Your task to perform on an android device: empty trash in google photos Image 0: 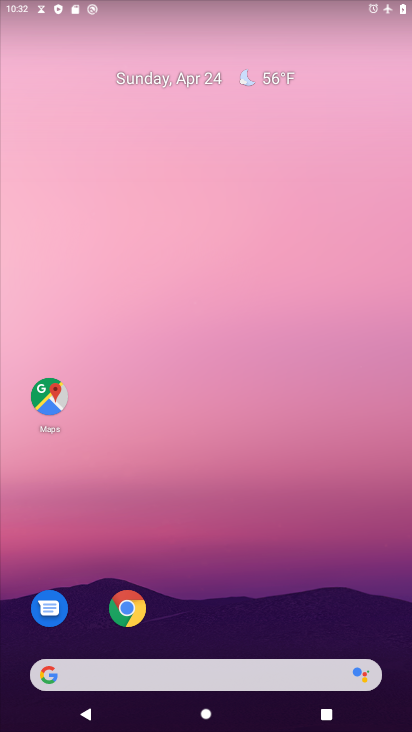
Step 0: drag from (213, 643) to (217, 12)
Your task to perform on an android device: empty trash in google photos Image 1: 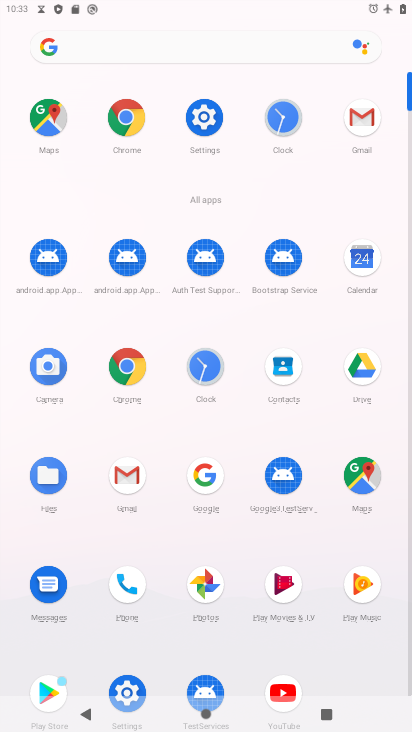
Step 1: click (201, 580)
Your task to perform on an android device: empty trash in google photos Image 2: 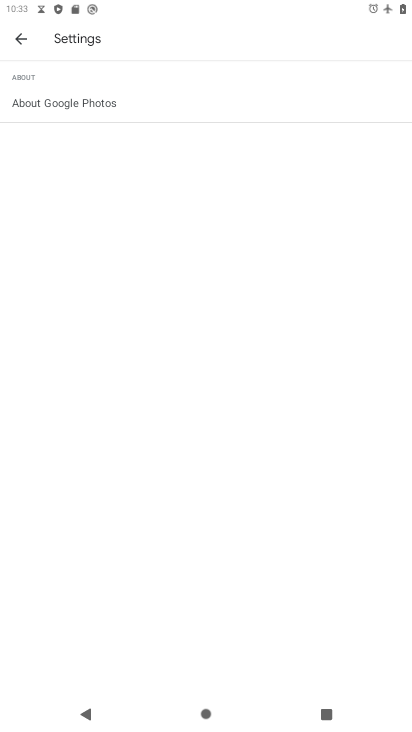
Step 2: click (26, 37)
Your task to perform on an android device: empty trash in google photos Image 3: 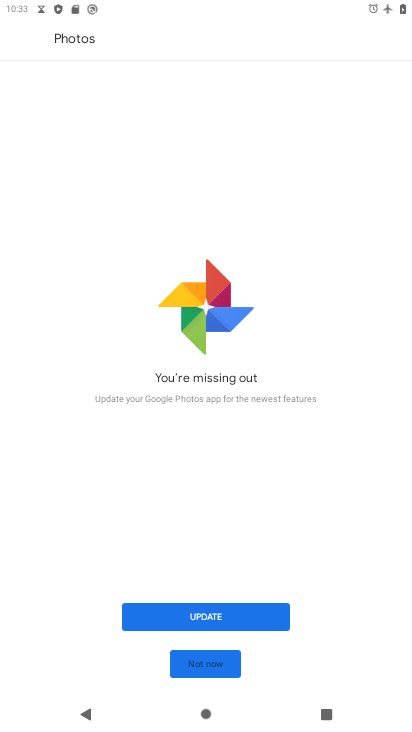
Step 3: click (213, 669)
Your task to perform on an android device: empty trash in google photos Image 4: 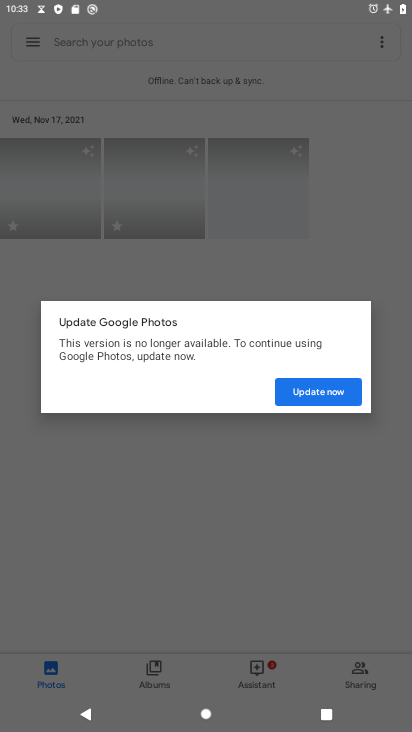
Step 4: click (325, 391)
Your task to perform on an android device: empty trash in google photos Image 5: 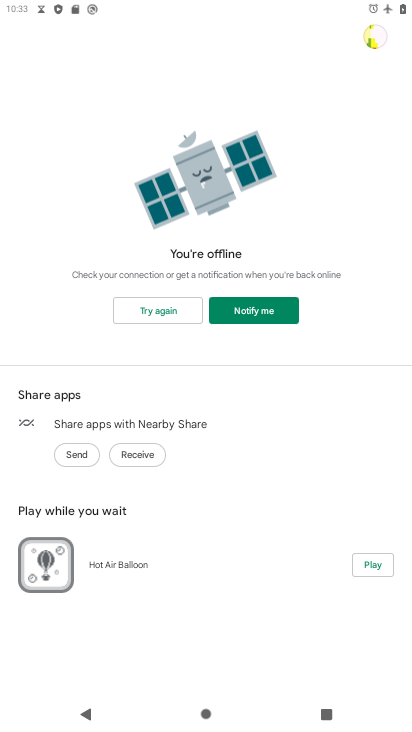
Step 5: click (160, 311)
Your task to perform on an android device: empty trash in google photos Image 6: 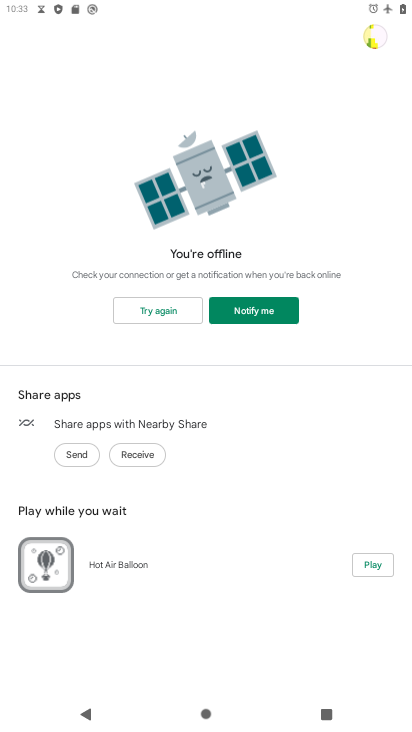
Step 6: click (174, 299)
Your task to perform on an android device: empty trash in google photos Image 7: 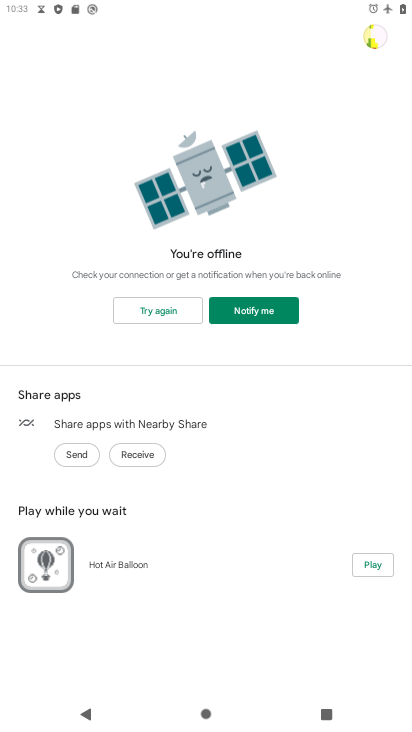
Step 7: press home button
Your task to perform on an android device: empty trash in google photos Image 8: 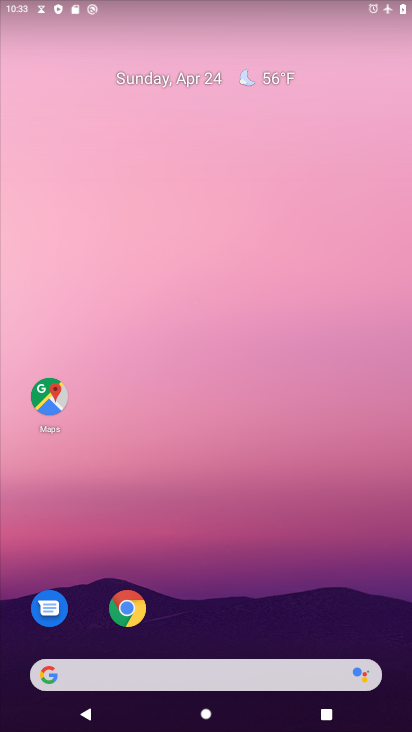
Step 8: drag from (204, 565) to (169, 10)
Your task to perform on an android device: empty trash in google photos Image 9: 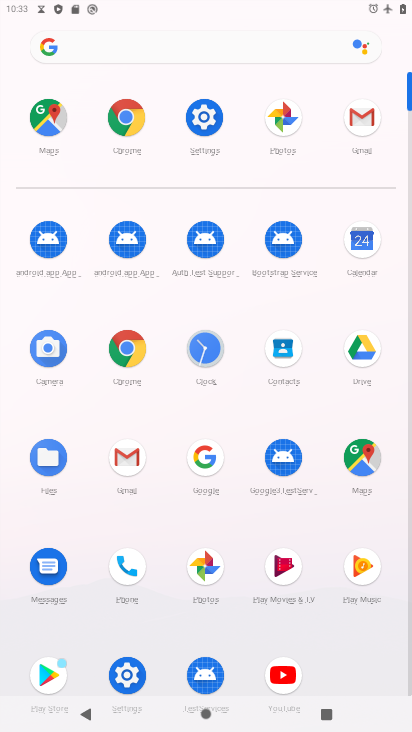
Step 9: click (202, 573)
Your task to perform on an android device: empty trash in google photos Image 10: 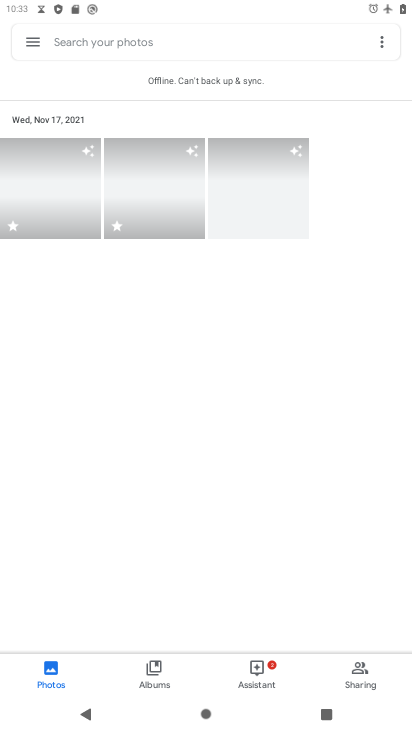
Step 10: click (33, 43)
Your task to perform on an android device: empty trash in google photos Image 11: 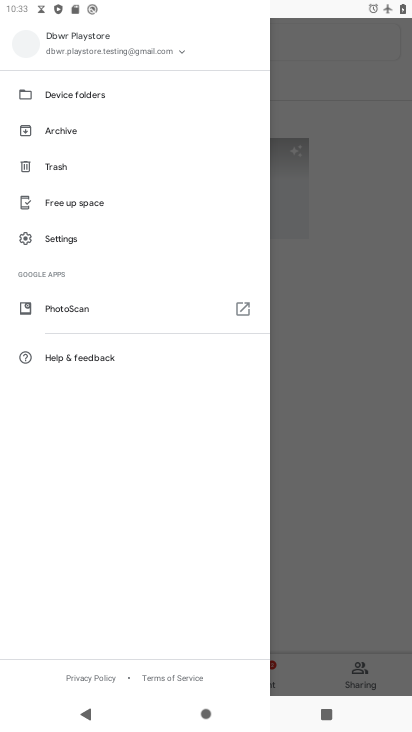
Step 11: click (58, 161)
Your task to perform on an android device: empty trash in google photos Image 12: 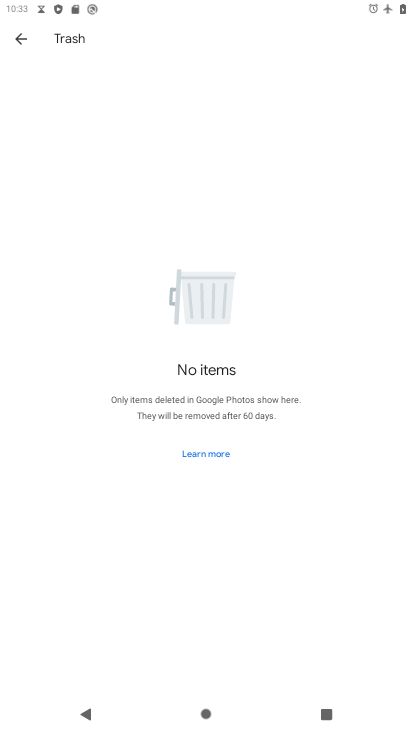
Step 12: task complete